Your task to perform on an android device: turn off notifications settings in the gmail app Image 0: 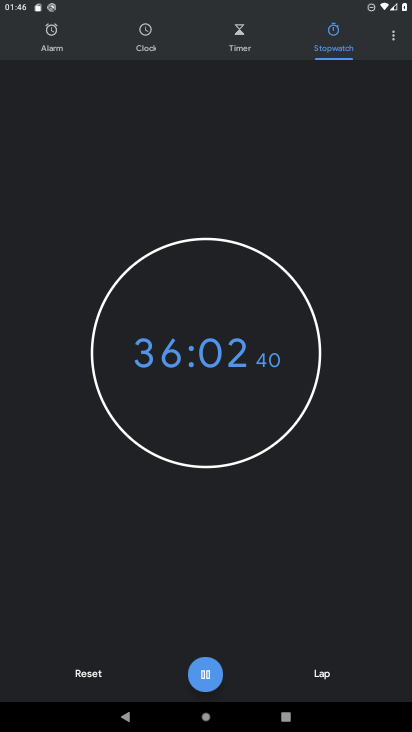
Step 0: press home button
Your task to perform on an android device: turn off notifications settings in the gmail app Image 1: 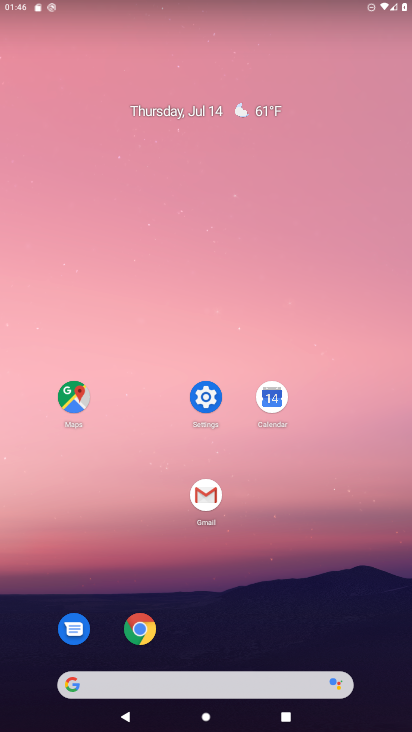
Step 1: click (203, 493)
Your task to perform on an android device: turn off notifications settings in the gmail app Image 2: 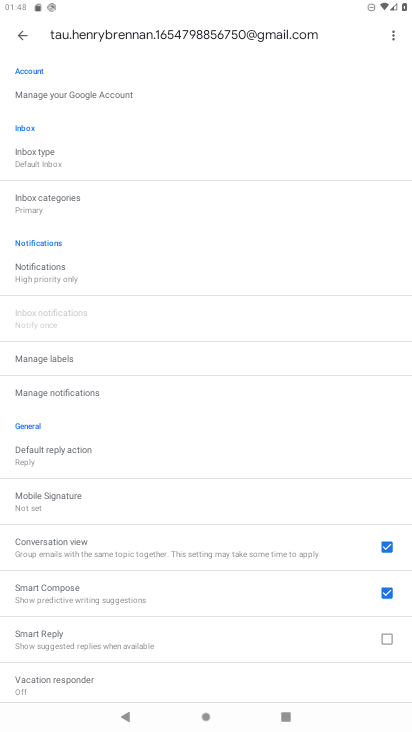
Step 2: click (52, 263)
Your task to perform on an android device: turn off notifications settings in the gmail app Image 3: 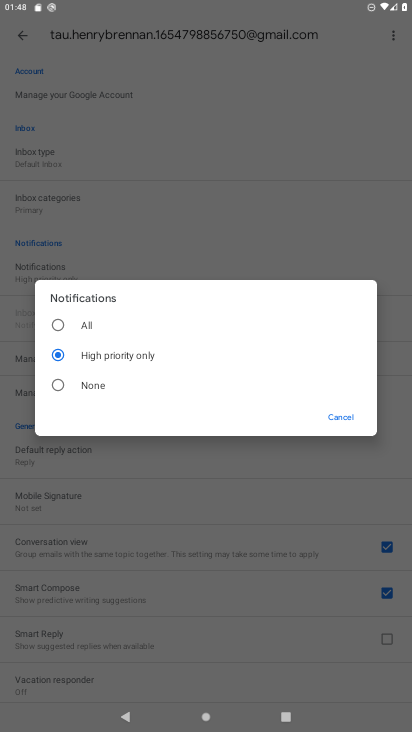
Step 3: click (72, 388)
Your task to perform on an android device: turn off notifications settings in the gmail app Image 4: 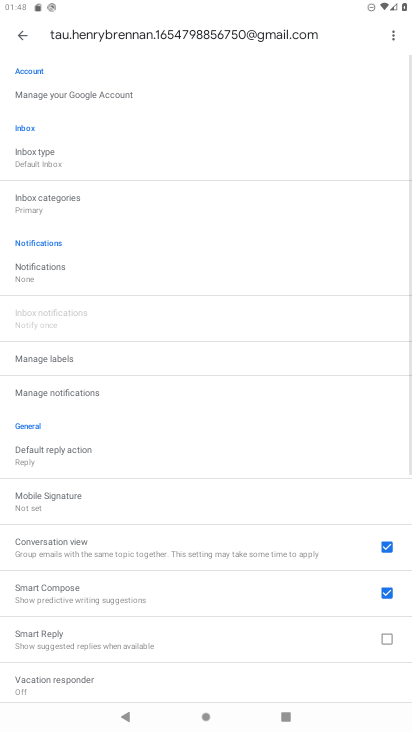
Step 4: task complete